Your task to perform on an android device: check google app version Image 0: 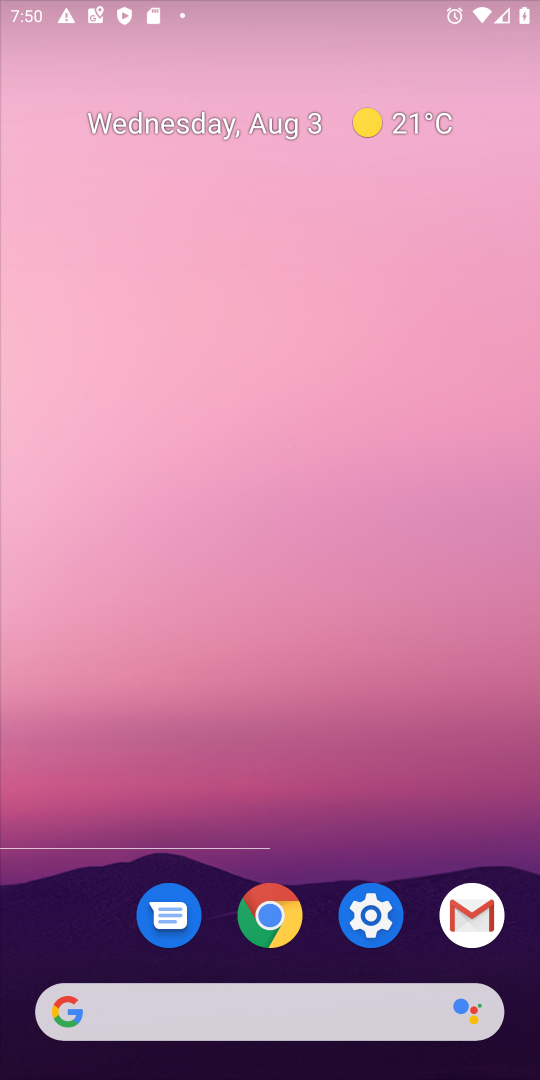
Step 0: press home button
Your task to perform on an android device: check google app version Image 1: 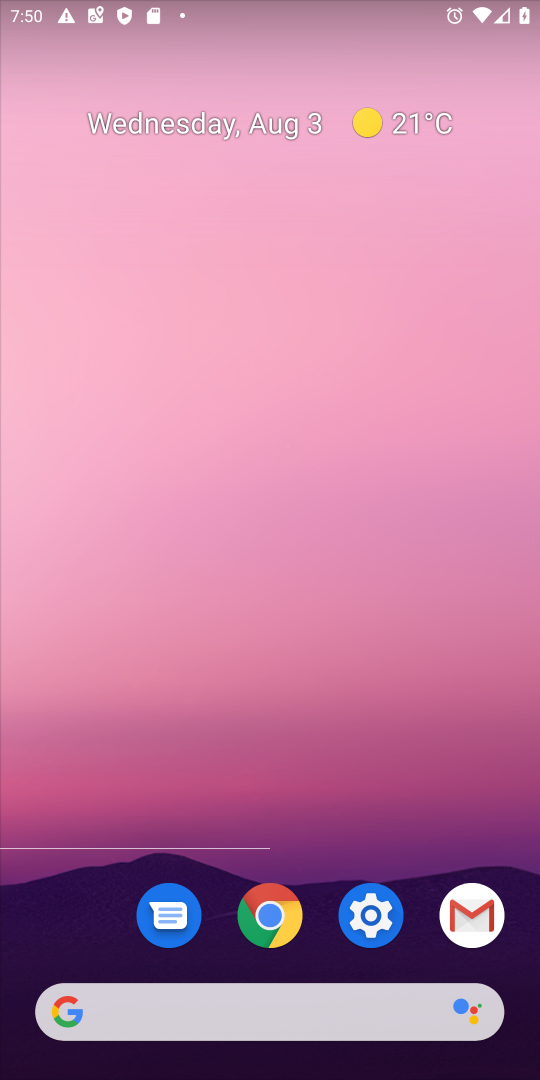
Step 1: drag from (295, 1039) to (172, 194)
Your task to perform on an android device: check google app version Image 2: 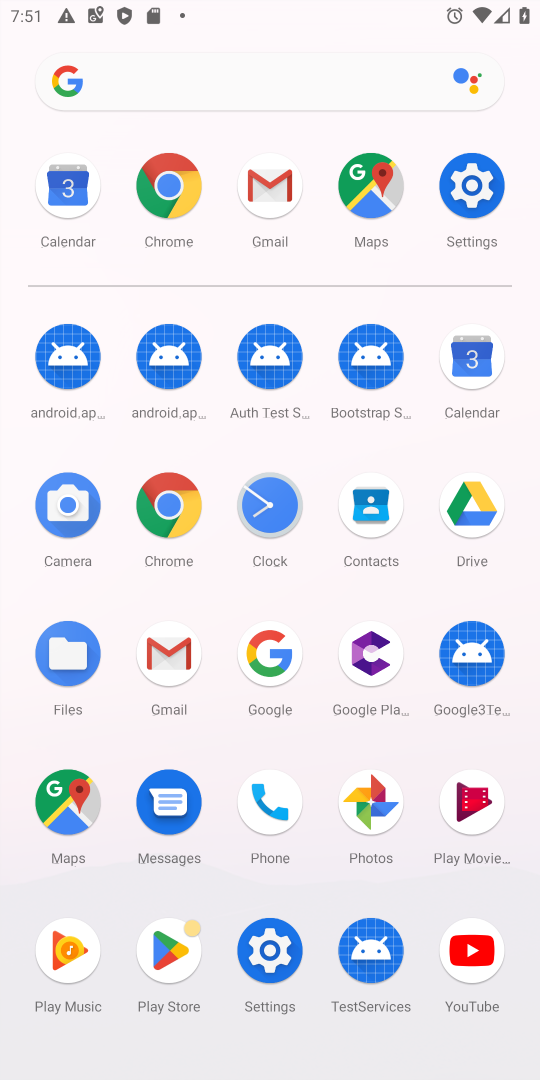
Step 2: click (158, 174)
Your task to perform on an android device: check google app version Image 3: 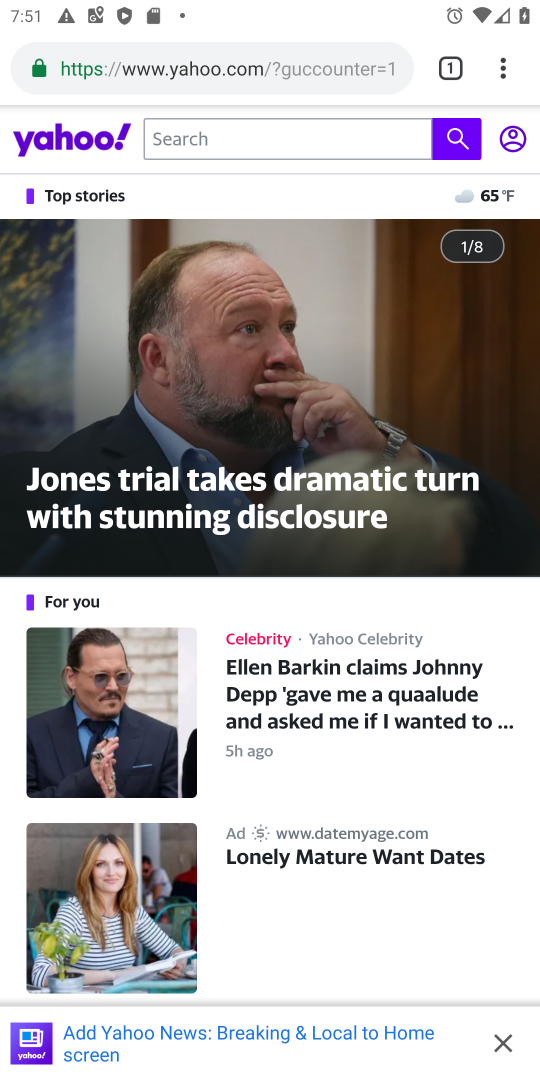
Step 3: click (490, 76)
Your task to perform on an android device: check google app version Image 4: 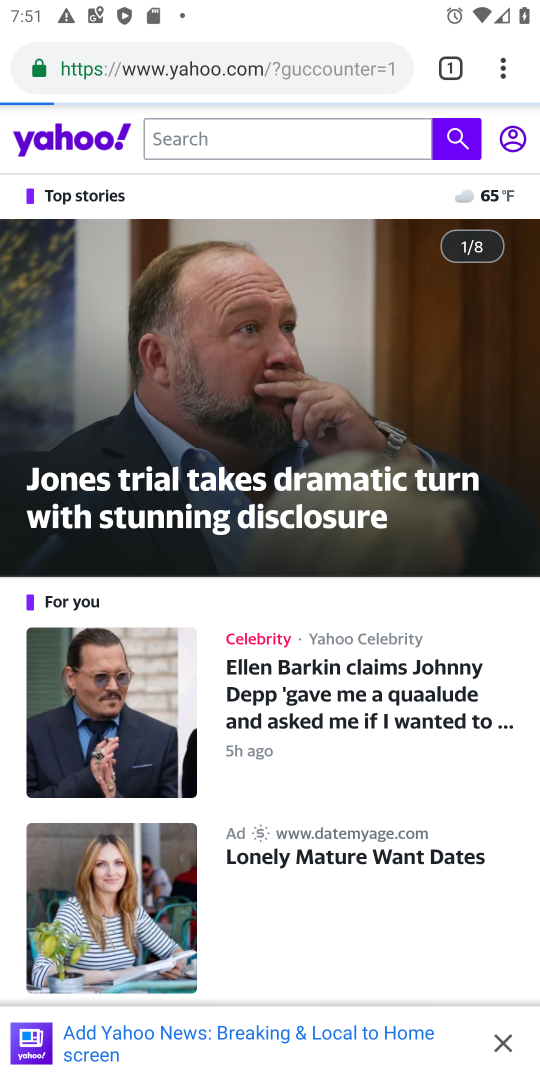
Step 4: click (495, 80)
Your task to perform on an android device: check google app version Image 5: 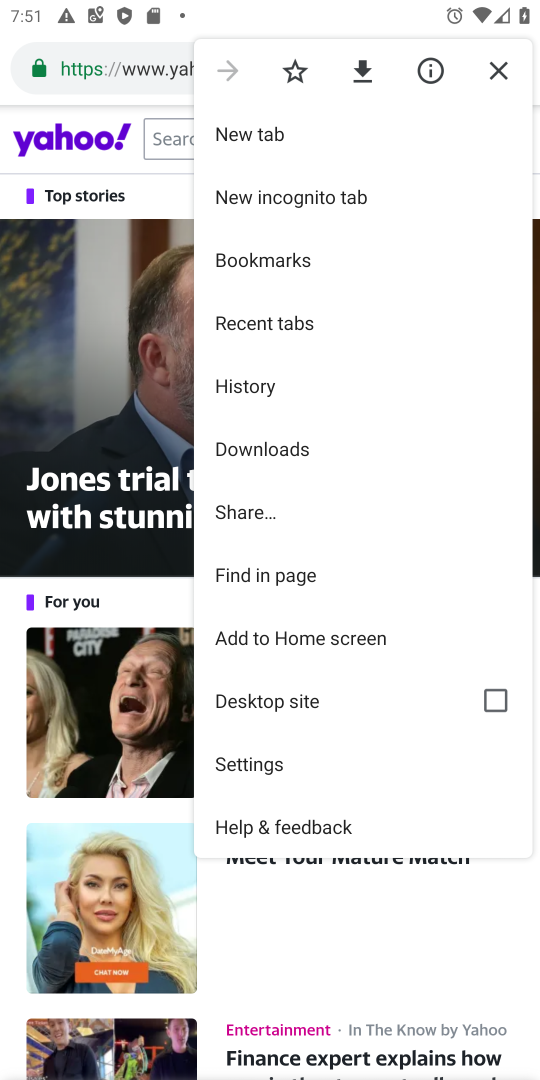
Step 5: click (245, 763)
Your task to perform on an android device: check google app version Image 6: 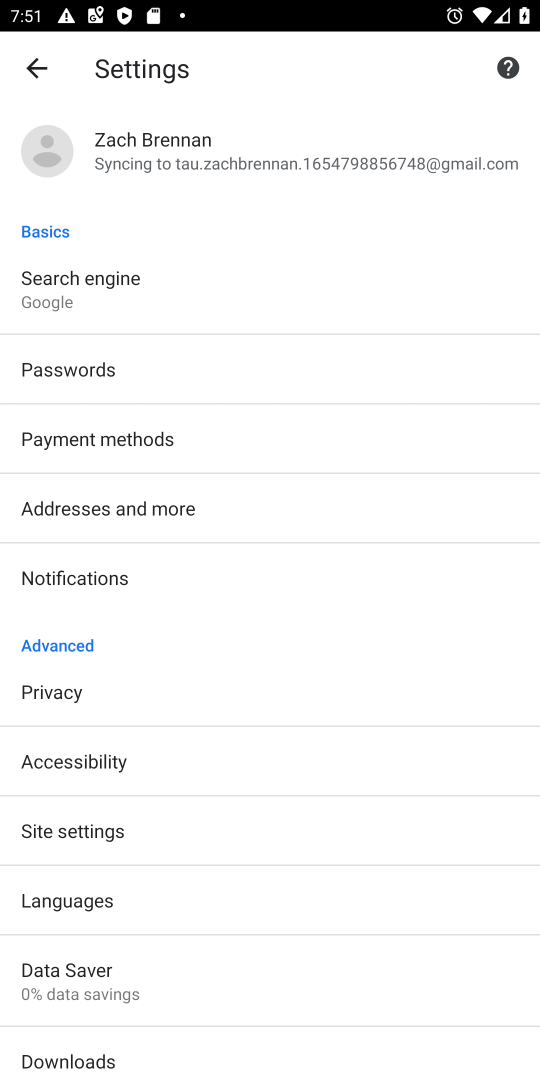
Step 6: drag from (115, 1013) to (169, 696)
Your task to perform on an android device: check google app version Image 7: 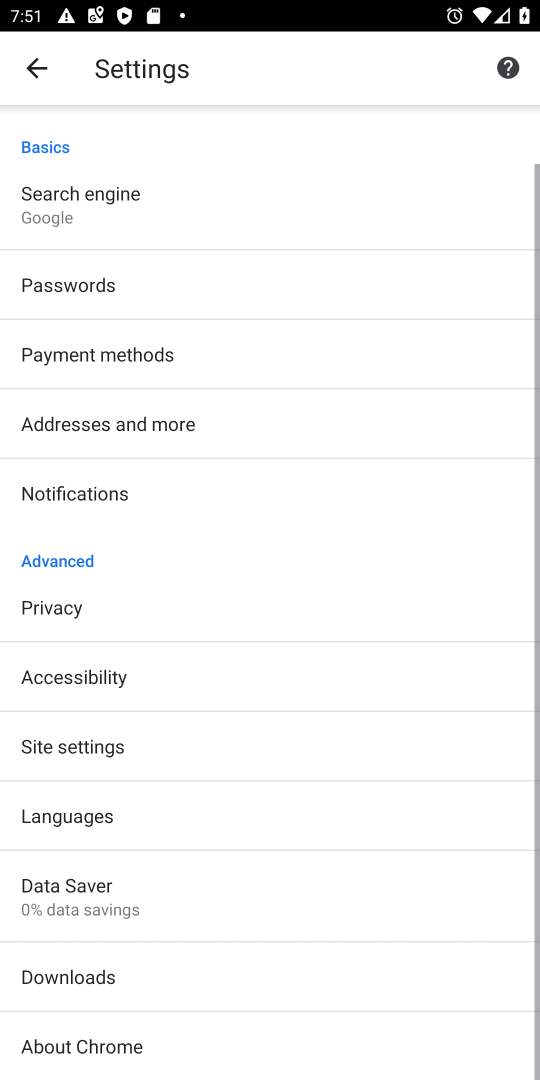
Step 7: click (109, 1044)
Your task to perform on an android device: check google app version Image 8: 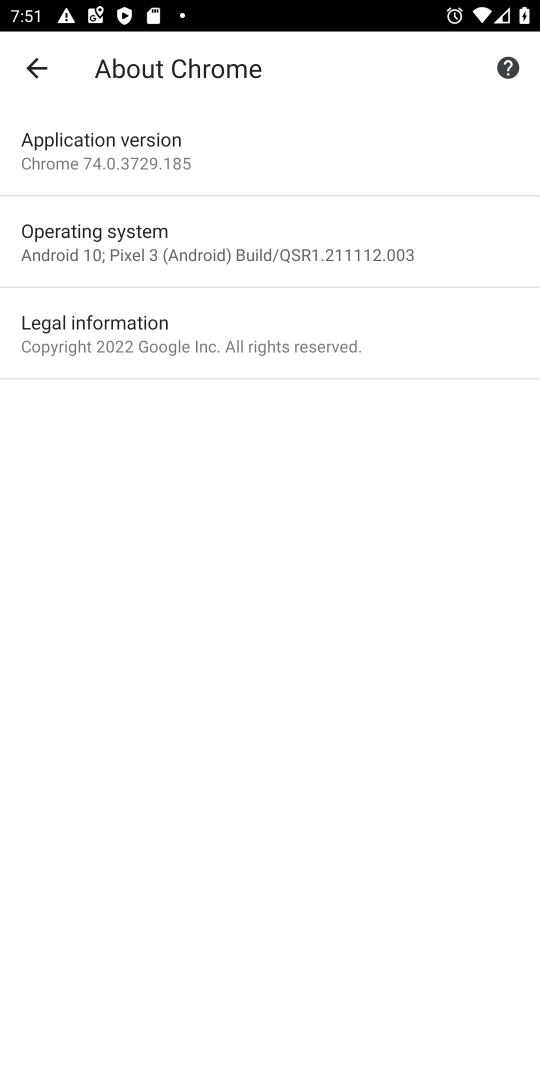
Step 8: click (116, 134)
Your task to perform on an android device: check google app version Image 9: 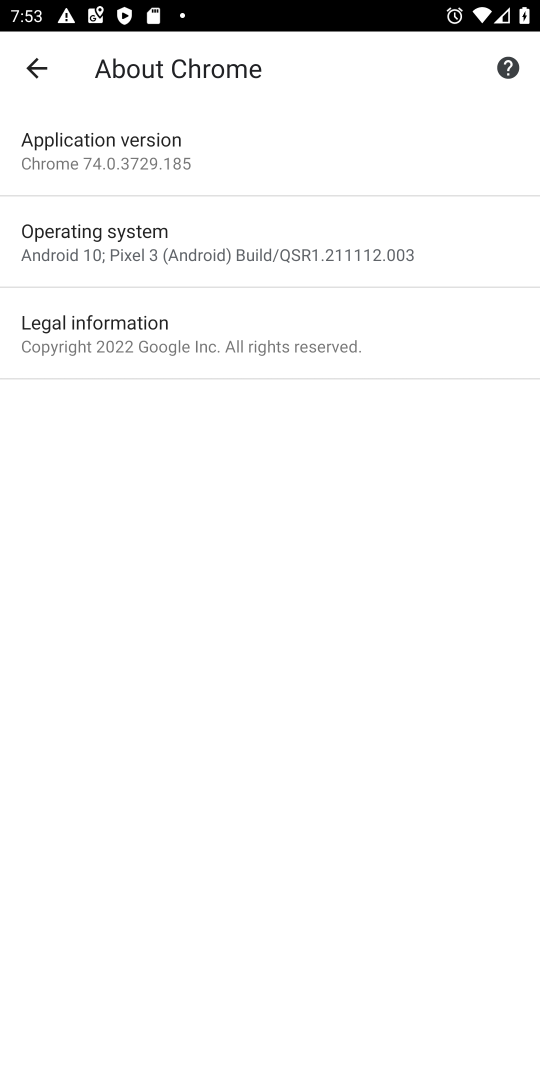
Step 9: task complete